Your task to perform on an android device: see sites visited before in the chrome app Image 0: 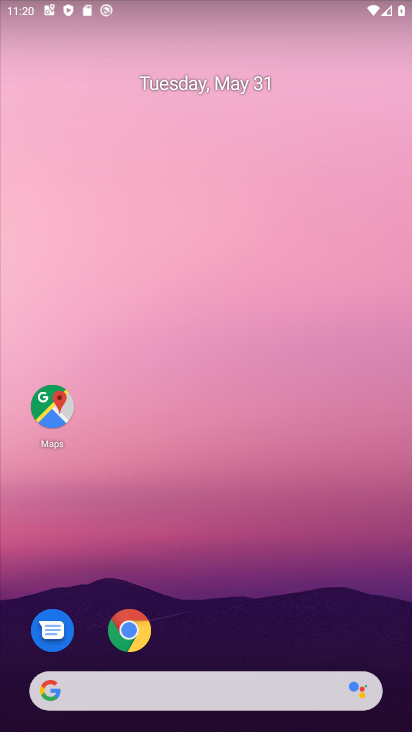
Step 0: click (127, 646)
Your task to perform on an android device: see sites visited before in the chrome app Image 1: 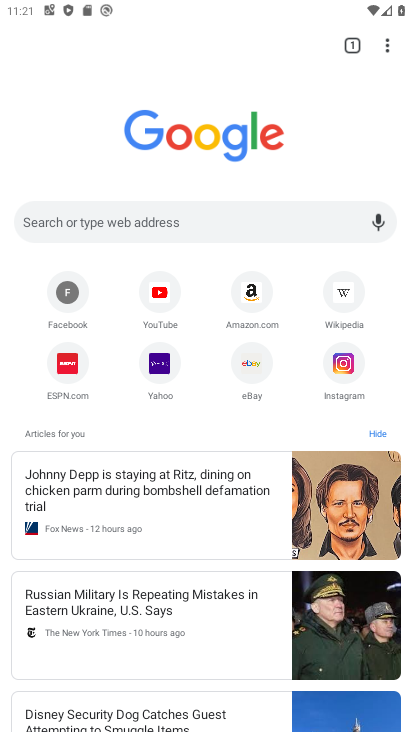
Step 1: click (390, 36)
Your task to perform on an android device: see sites visited before in the chrome app Image 2: 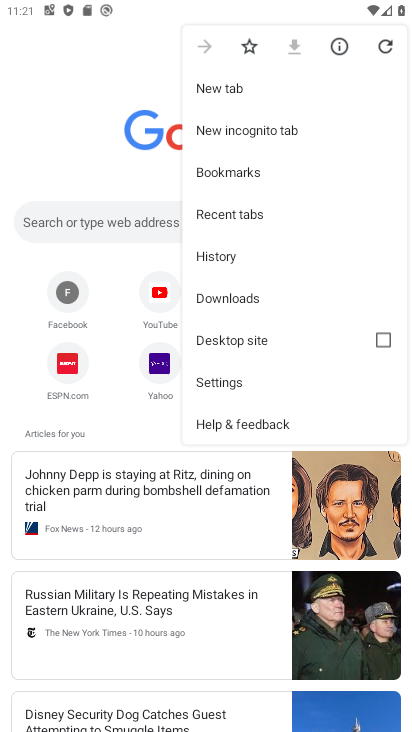
Step 2: click (234, 258)
Your task to perform on an android device: see sites visited before in the chrome app Image 3: 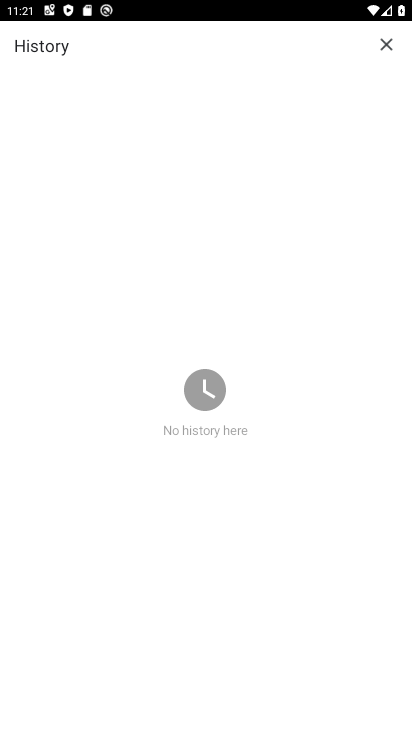
Step 3: task complete